Your task to perform on an android device: Search for pizza restaurants on Maps Image 0: 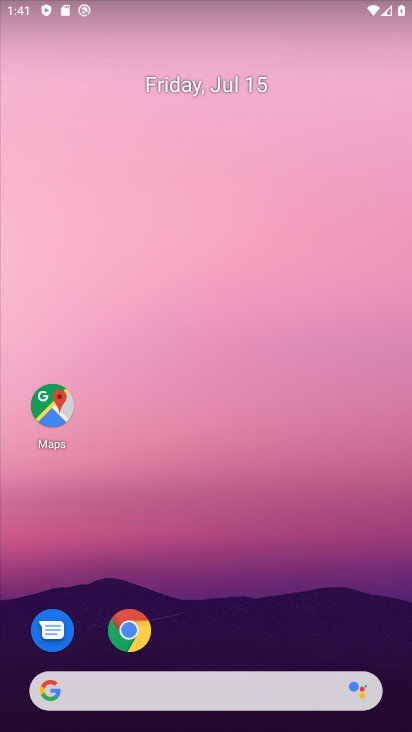
Step 0: click (48, 411)
Your task to perform on an android device: Search for pizza restaurants on Maps Image 1: 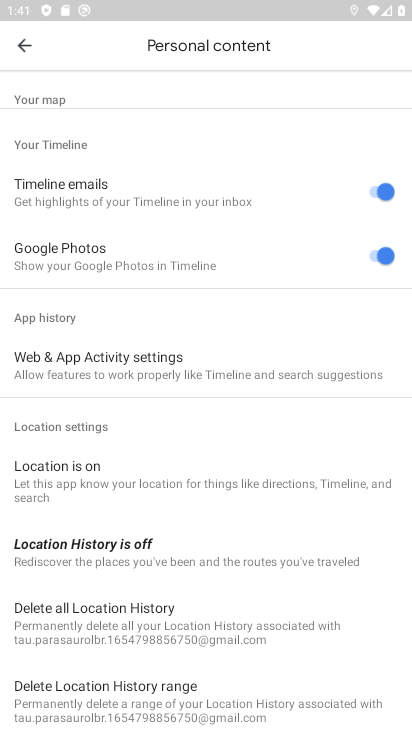
Step 1: click (17, 39)
Your task to perform on an android device: Search for pizza restaurants on Maps Image 2: 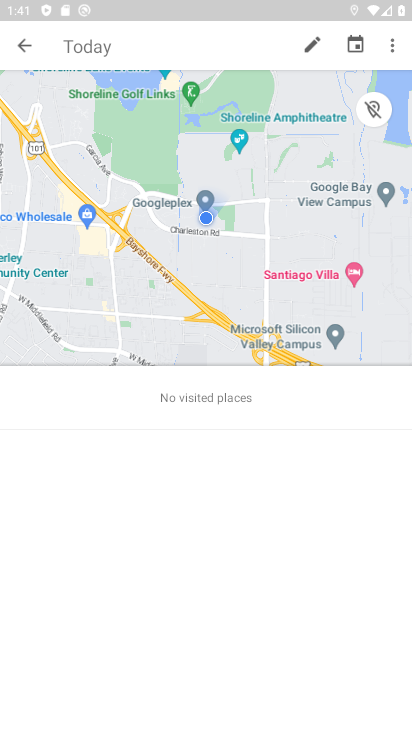
Step 2: click (21, 40)
Your task to perform on an android device: Search for pizza restaurants on Maps Image 3: 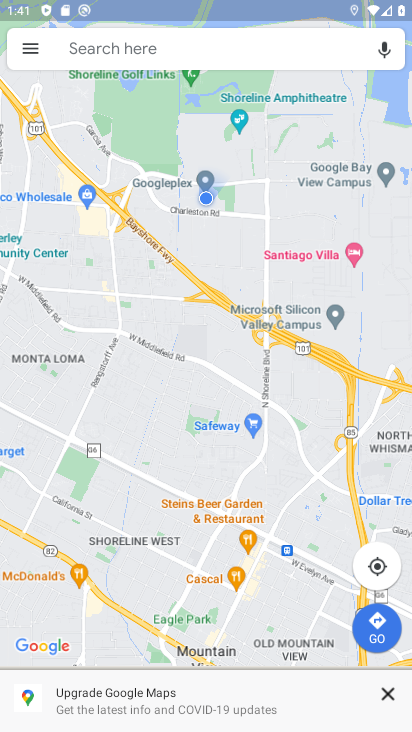
Step 3: click (88, 54)
Your task to perform on an android device: Search for pizza restaurants on Maps Image 4: 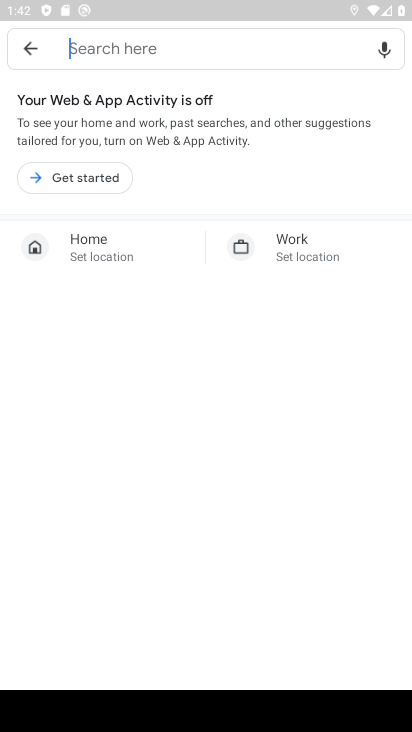
Step 4: type "pizza restaurants"
Your task to perform on an android device: Search for pizza restaurants on Maps Image 5: 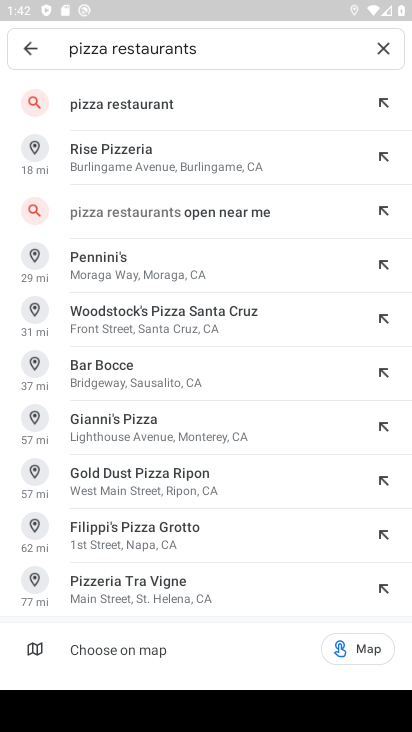
Step 5: click (107, 112)
Your task to perform on an android device: Search for pizza restaurants on Maps Image 6: 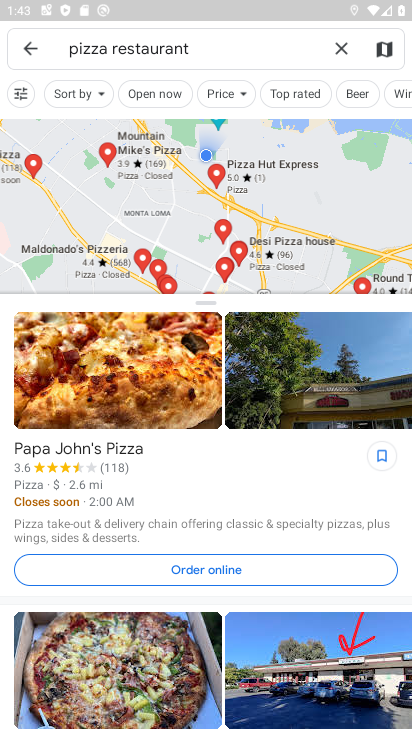
Step 6: task complete